Your task to perform on an android device: Turn off the flashlight Image 0: 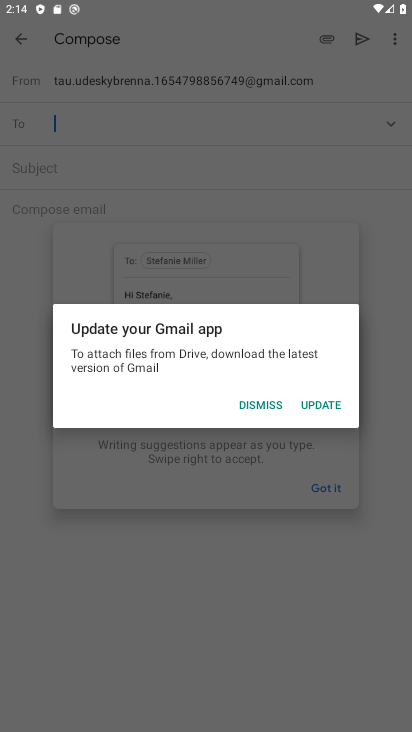
Step 0: press home button
Your task to perform on an android device: Turn off the flashlight Image 1: 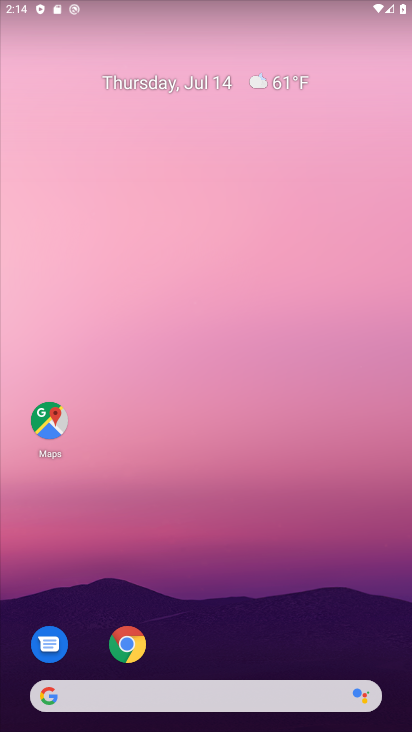
Step 1: drag from (293, 7) to (233, 523)
Your task to perform on an android device: Turn off the flashlight Image 2: 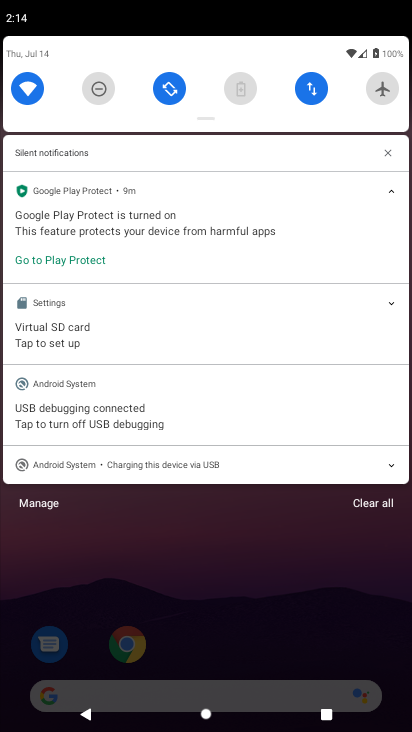
Step 2: drag from (202, 110) to (203, 518)
Your task to perform on an android device: Turn off the flashlight Image 3: 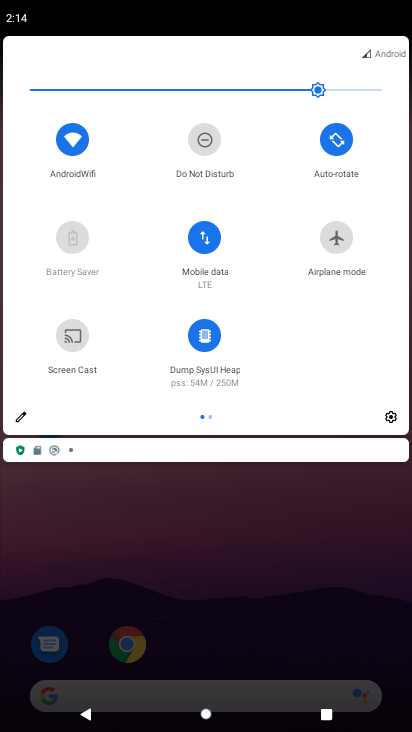
Step 3: click (20, 411)
Your task to perform on an android device: Turn off the flashlight Image 4: 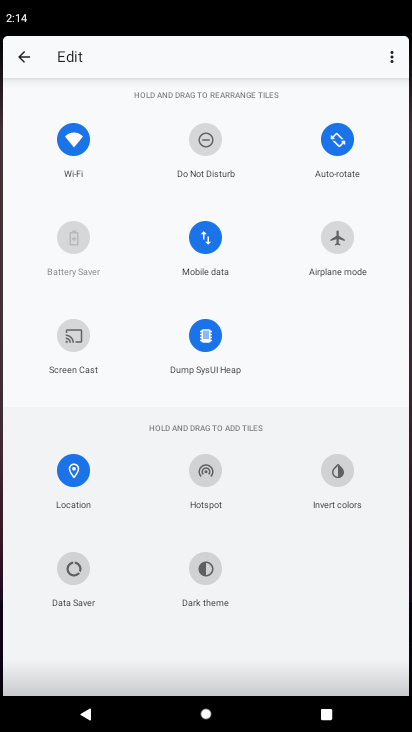
Step 4: task complete